Your task to perform on an android device: Go to Yahoo.com Image 0: 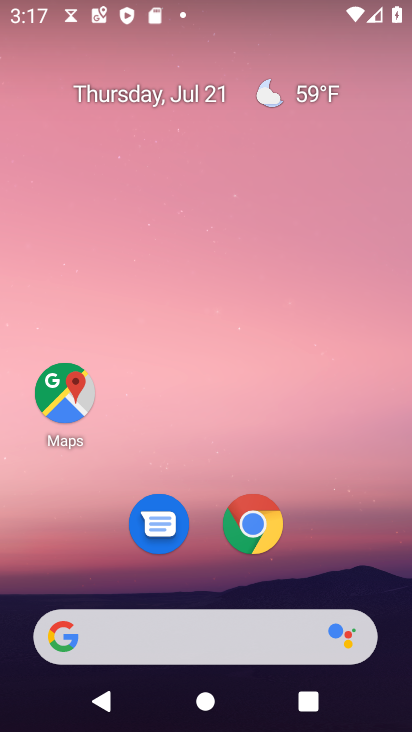
Step 0: press home button
Your task to perform on an android device: Go to Yahoo.com Image 1: 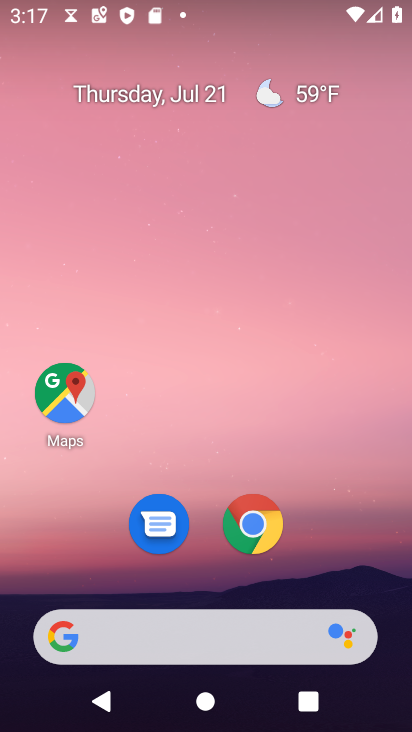
Step 1: click (250, 519)
Your task to perform on an android device: Go to Yahoo.com Image 2: 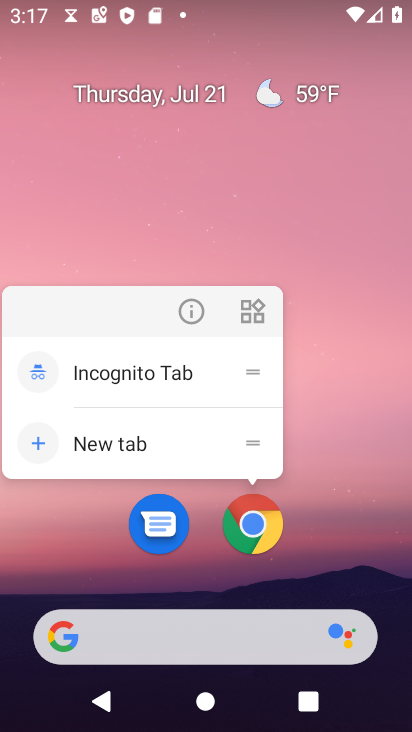
Step 2: click (252, 526)
Your task to perform on an android device: Go to Yahoo.com Image 3: 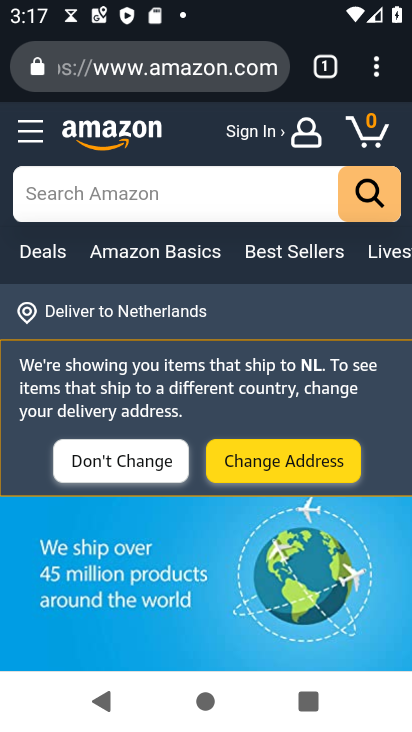
Step 3: drag from (374, 69) to (160, 128)
Your task to perform on an android device: Go to Yahoo.com Image 4: 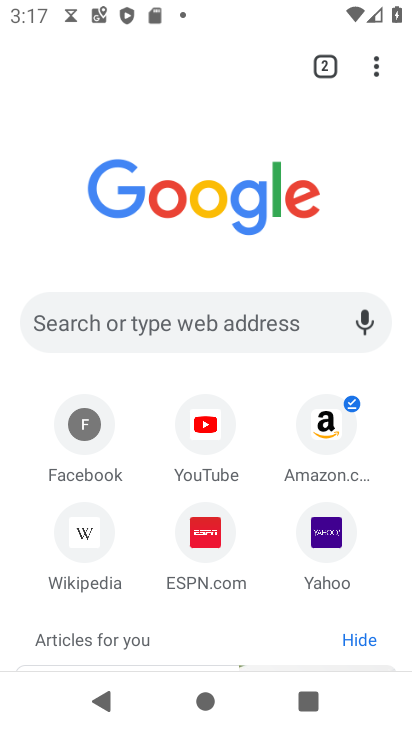
Step 4: click (327, 532)
Your task to perform on an android device: Go to Yahoo.com Image 5: 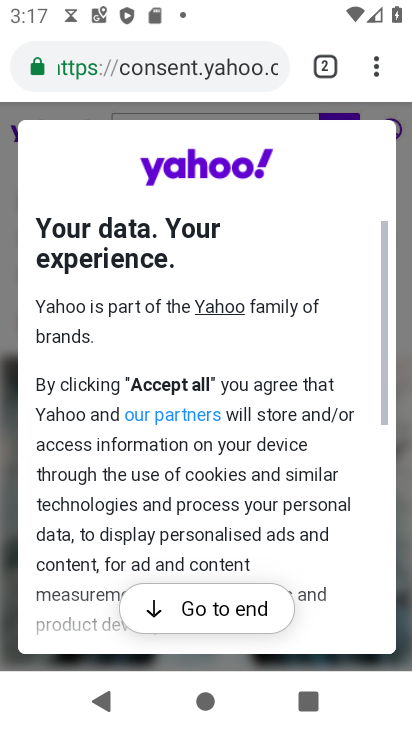
Step 5: click (191, 604)
Your task to perform on an android device: Go to Yahoo.com Image 6: 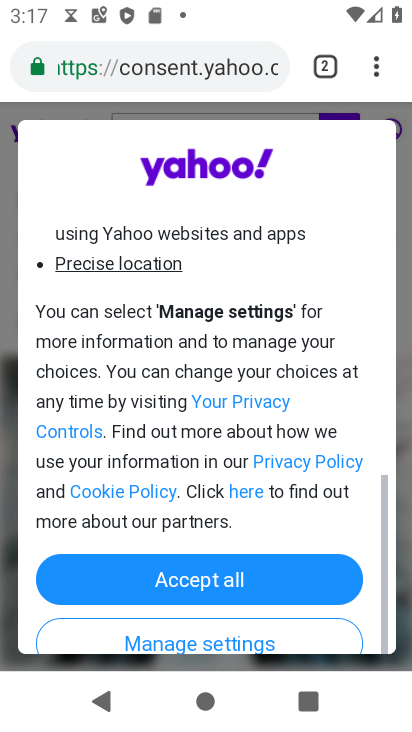
Step 6: click (196, 578)
Your task to perform on an android device: Go to Yahoo.com Image 7: 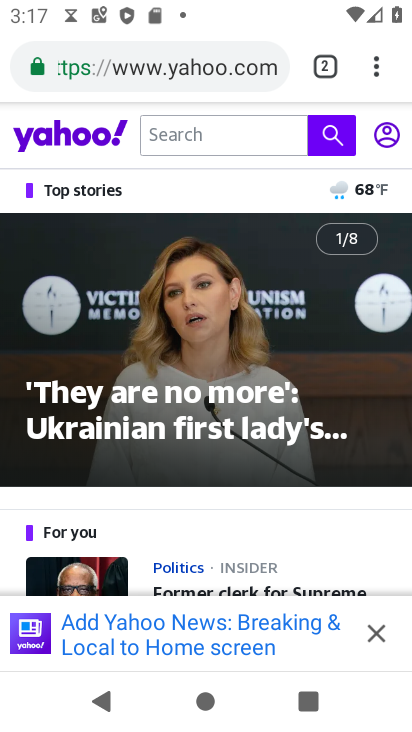
Step 7: task complete